Your task to perform on an android device: Search for Italian restaurants on Maps Image 0: 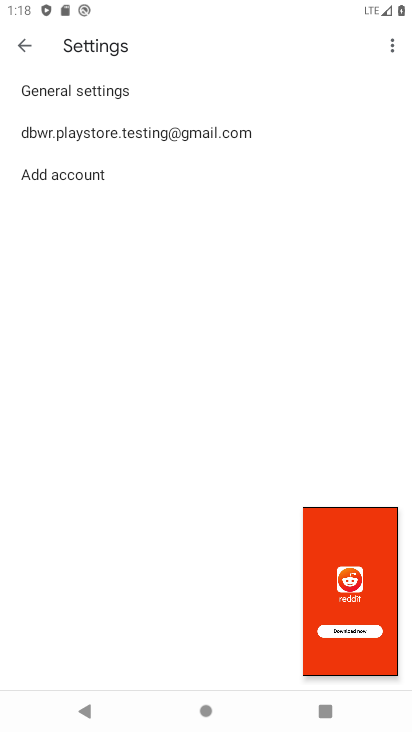
Step 0: press home button
Your task to perform on an android device: Search for Italian restaurants on Maps Image 1: 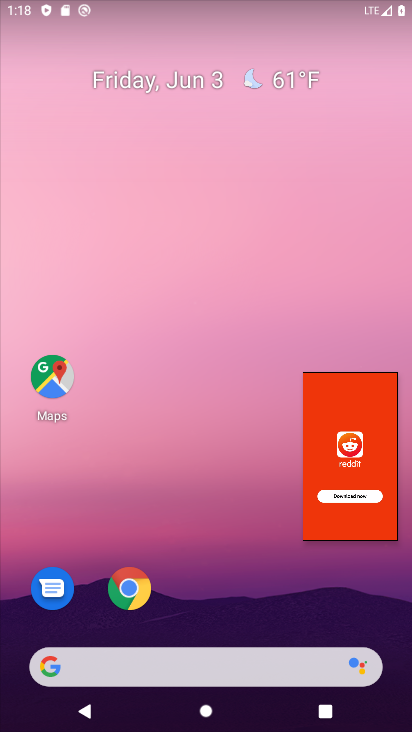
Step 1: click (246, 444)
Your task to perform on an android device: Search for Italian restaurants on Maps Image 2: 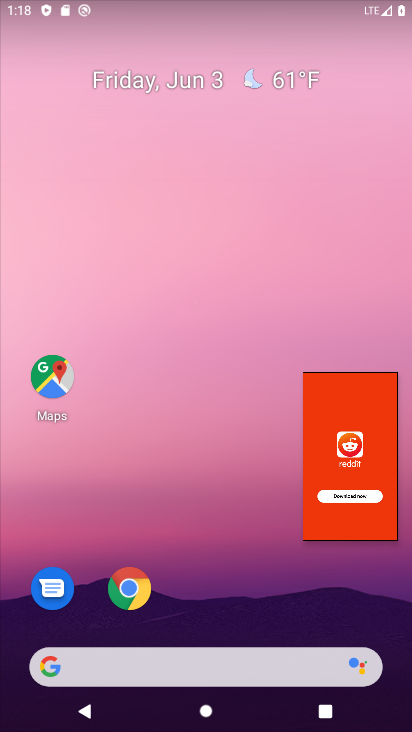
Step 2: drag from (221, 525) to (261, 78)
Your task to perform on an android device: Search for Italian restaurants on Maps Image 3: 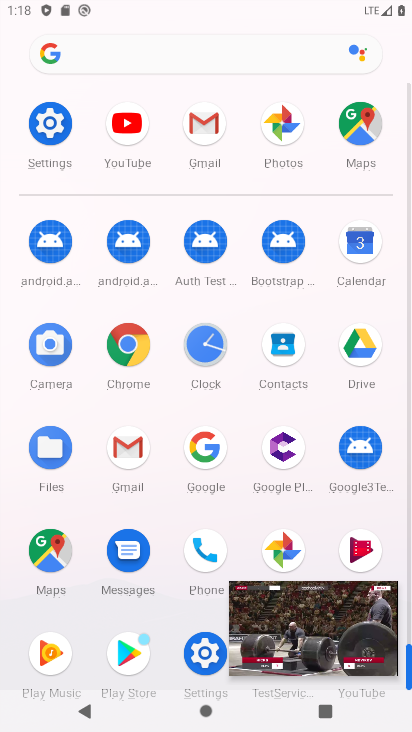
Step 3: click (383, 597)
Your task to perform on an android device: Search for Italian restaurants on Maps Image 4: 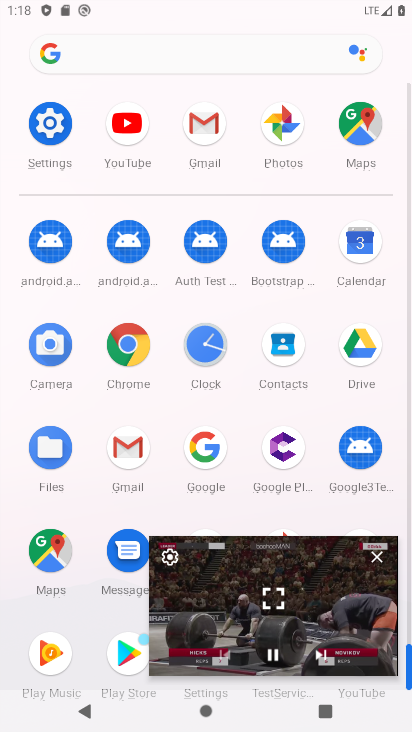
Step 4: click (380, 565)
Your task to perform on an android device: Search for Italian restaurants on Maps Image 5: 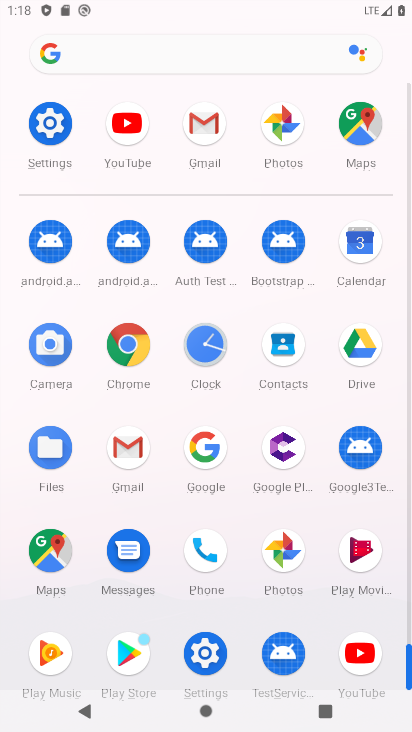
Step 5: click (48, 563)
Your task to perform on an android device: Search for Italian restaurants on Maps Image 6: 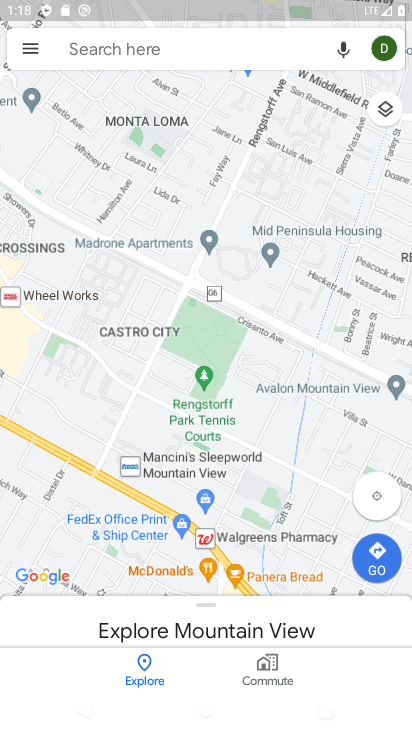
Step 6: click (156, 58)
Your task to perform on an android device: Search for Italian restaurants on Maps Image 7: 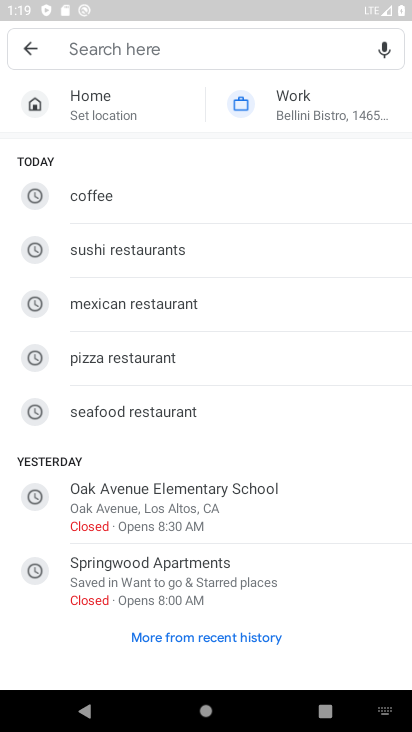
Step 7: type "Italian restaurants"
Your task to perform on an android device: Search for Italian restaurants on Maps Image 8: 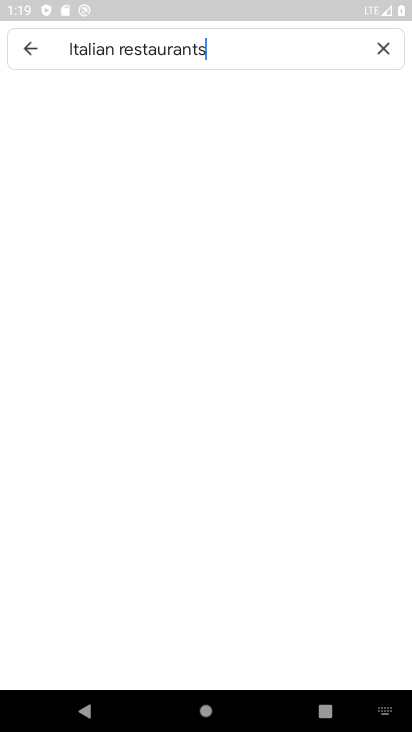
Step 8: type ""
Your task to perform on an android device: Search for Italian restaurants on Maps Image 9: 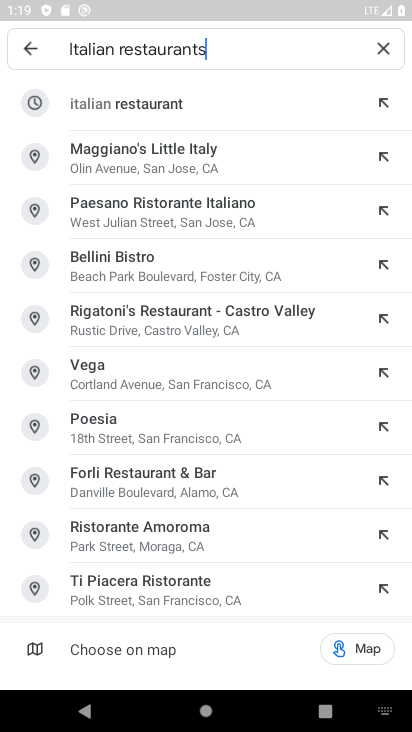
Step 9: click (163, 113)
Your task to perform on an android device: Search for Italian restaurants on Maps Image 10: 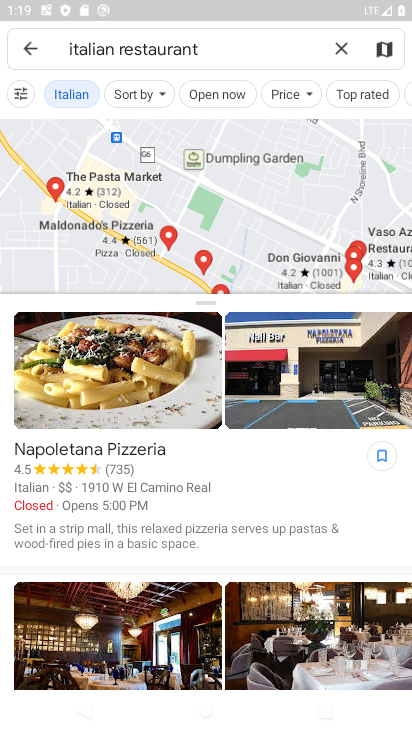
Step 10: task complete